Your task to perform on an android device: Set the phone to "Do not disturb". Image 0: 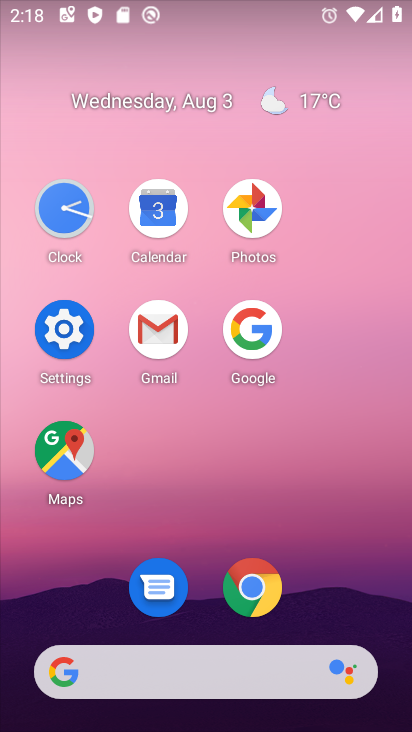
Step 0: click (53, 339)
Your task to perform on an android device: Set the phone to "Do not disturb". Image 1: 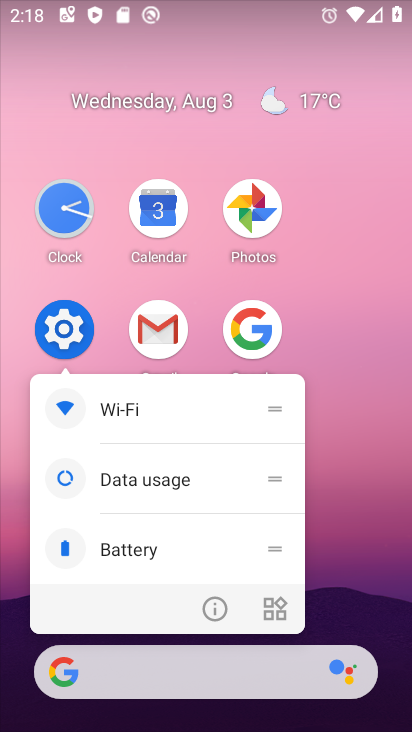
Step 1: click (55, 341)
Your task to perform on an android device: Set the phone to "Do not disturb". Image 2: 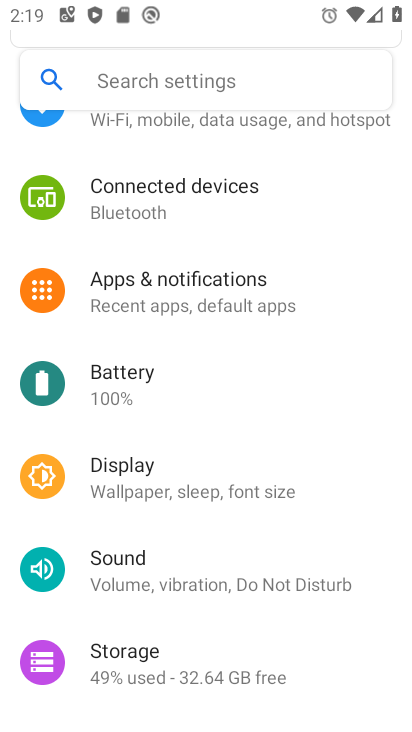
Step 2: drag from (204, 551) to (274, 336)
Your task to perform on an android device: Set the phone to "Do not disturb". Image 3: 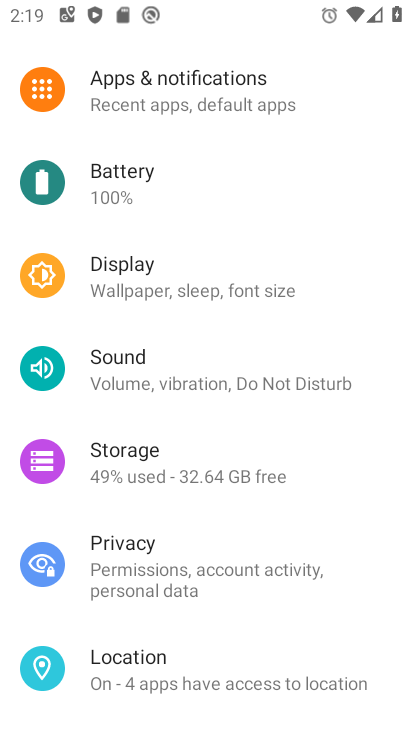
Step 3: click (314, 379)
Your task to perform on an android device: Set the phone to "Do not disturb". Image 4: 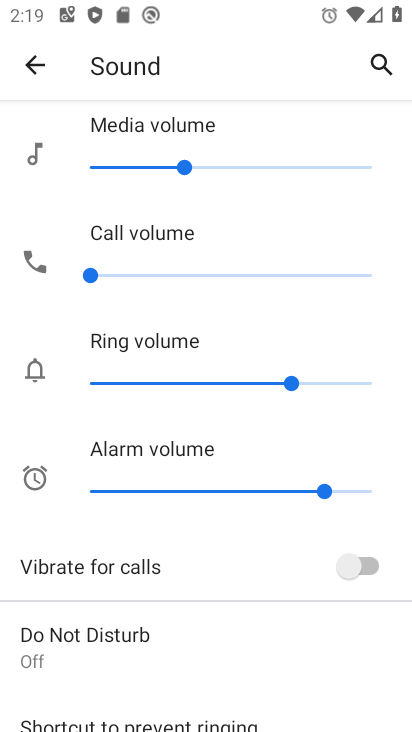
Step 4: click (175, 623)
Your task to perform on an android device: Set the phone to "Do not disturb". Image 5: 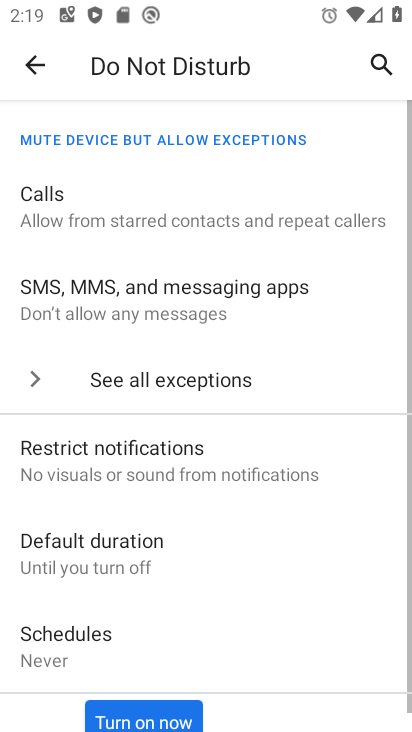
Step 5: drag from (209, 635) to (192, 332)
Your task to perform on an android device: Set the phone to "Do not disturb". Image 6: 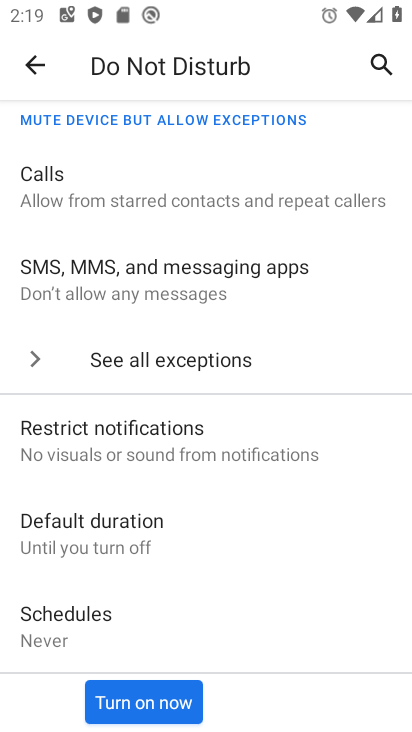
Step 6: click (170, 693)
Your task to perform on an android device: Set the phone to "Do not disturb". Image 7: 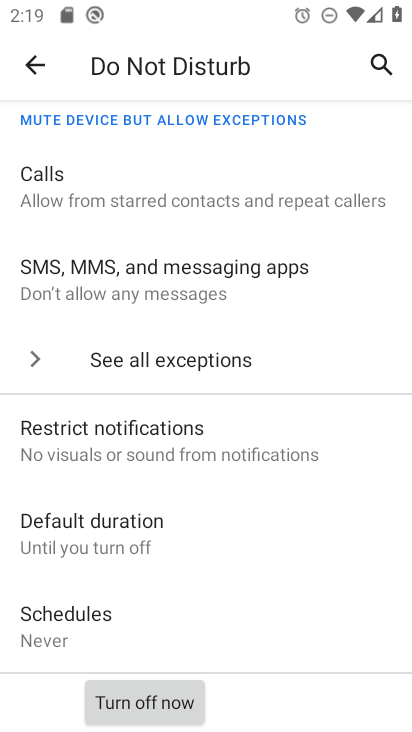
Step 7: task complete